Your task to perform on an android device: Open Google Image 0: 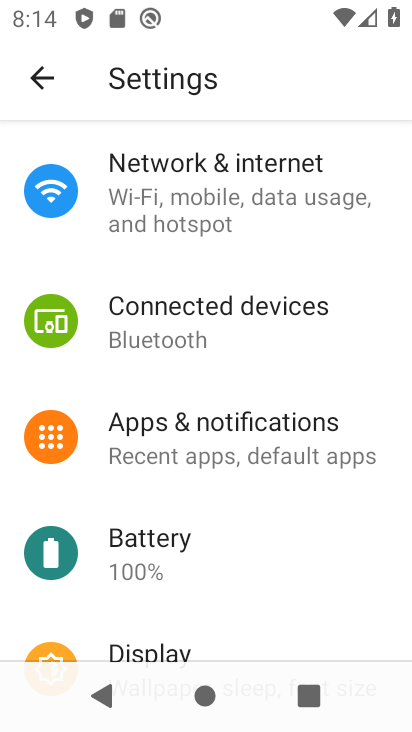
Step 0: press back button
Your task to perform on an android device: Open Google Image 1: 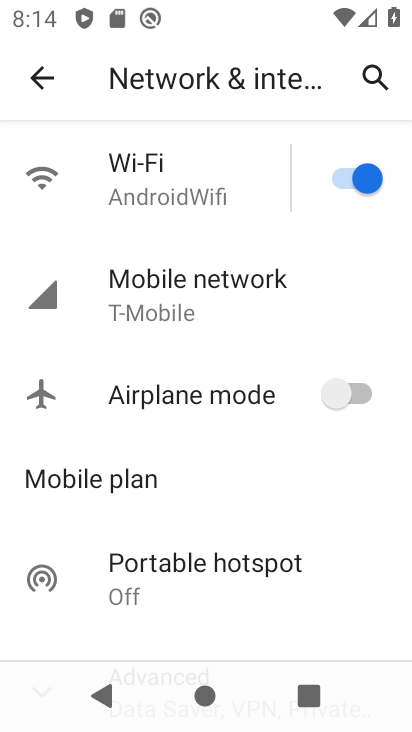
Step 1: press back button
Your task to perform on an android device: Open Google Image 2: 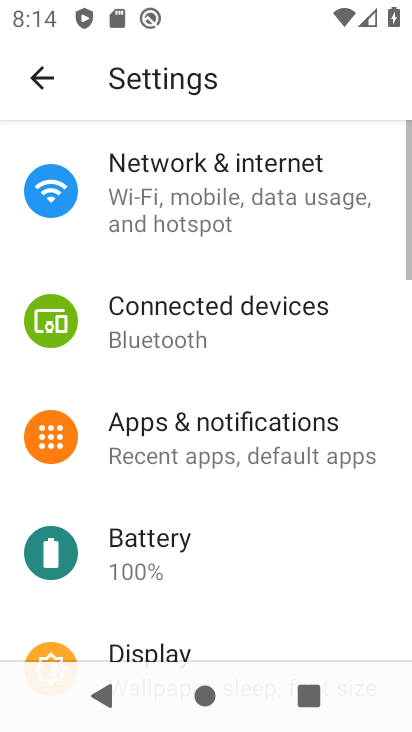
Step 2: press back button
Your task to perform on an android device: Open Google Image 3: 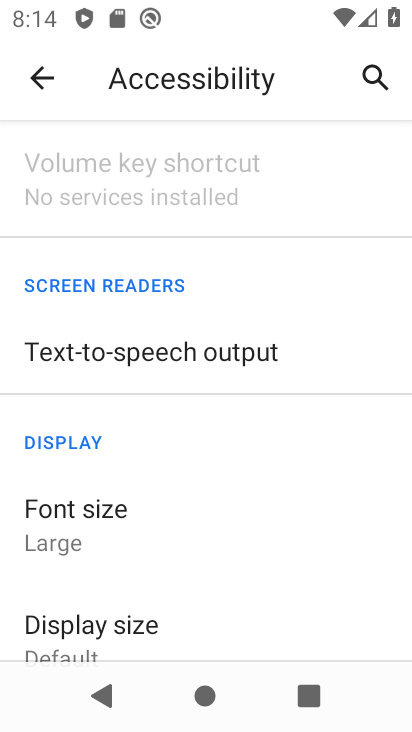
Step 3: press back button
Your task to perform on an android device: Open Google Image 4: 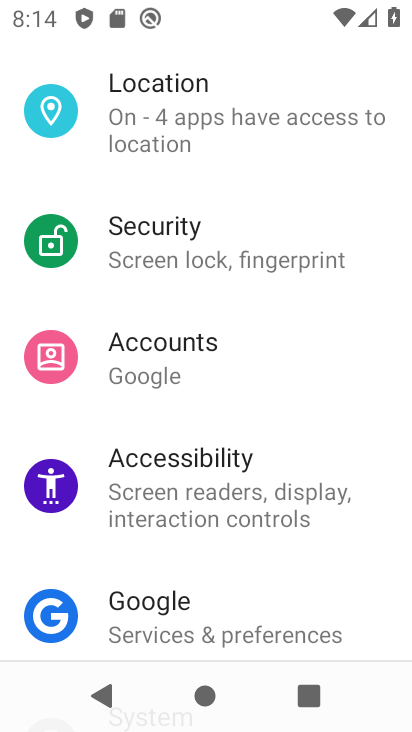
Step 4: press back button
Your task to perform on an android device: Open Google Image 5: 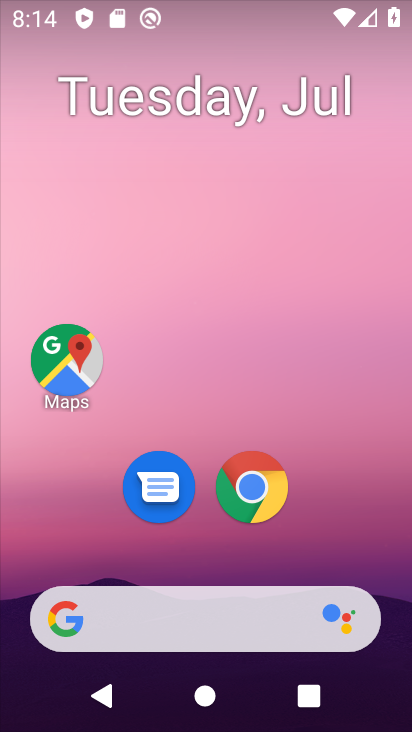
Step 5: drag from (155, 549) to (223, 73)
Your task to perform on an android device: Open Google Image 6: 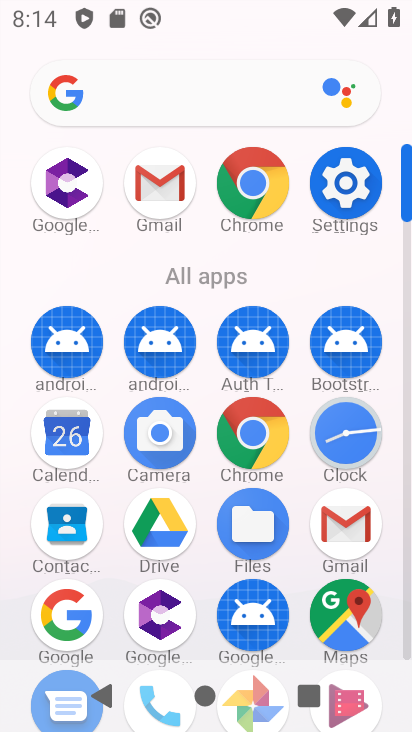
Step 6: click (68, 623)
Your task to perform on an android device: Open Google Image 7: 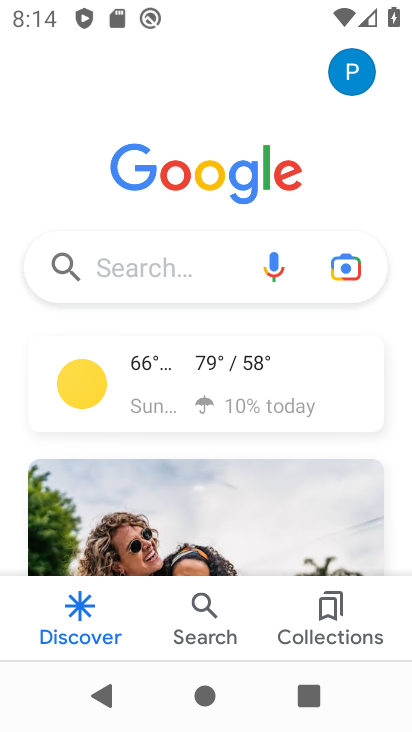
Step 7: task complete